Your task to perform on an android device: Go to ESPN.com Image 0: 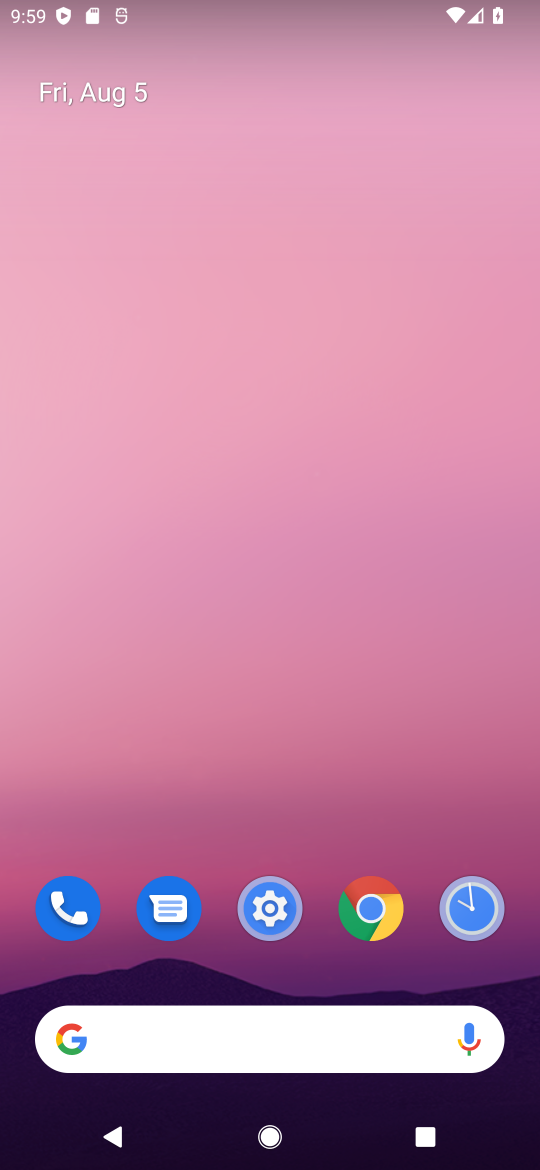
Step 0: click (393, 914)
Your task to perform on an android device: Go to ESPN.com Image 1: 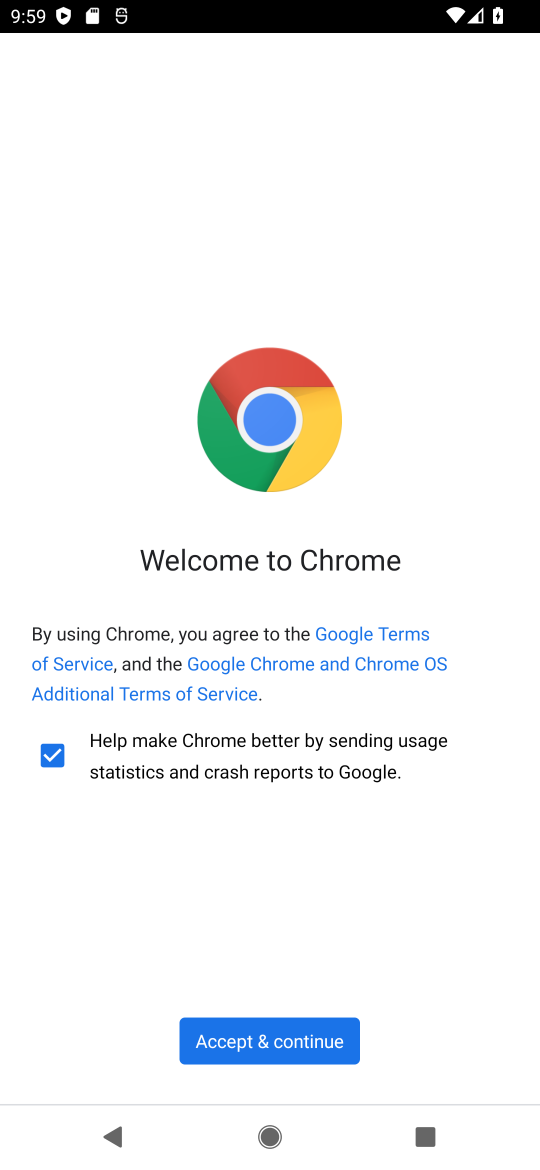
Step 1: click (296, 1009)
Your task to perform on an android device: Go to ESPN.com Image 2: 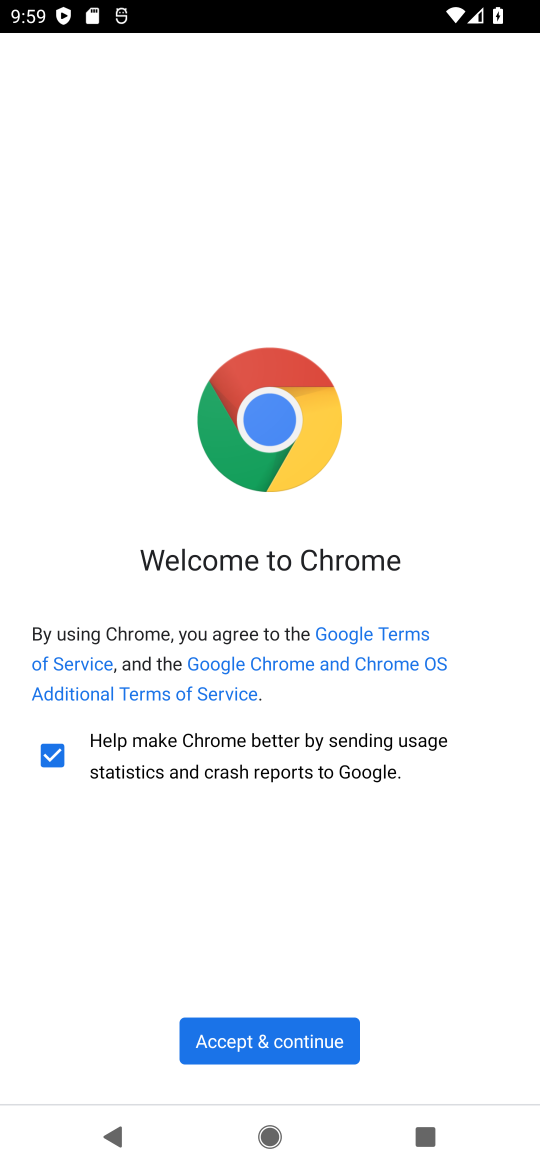
Step 2: click (296, 1009)
Your task to perform on an android device: Go to ESPN.com Image 3: 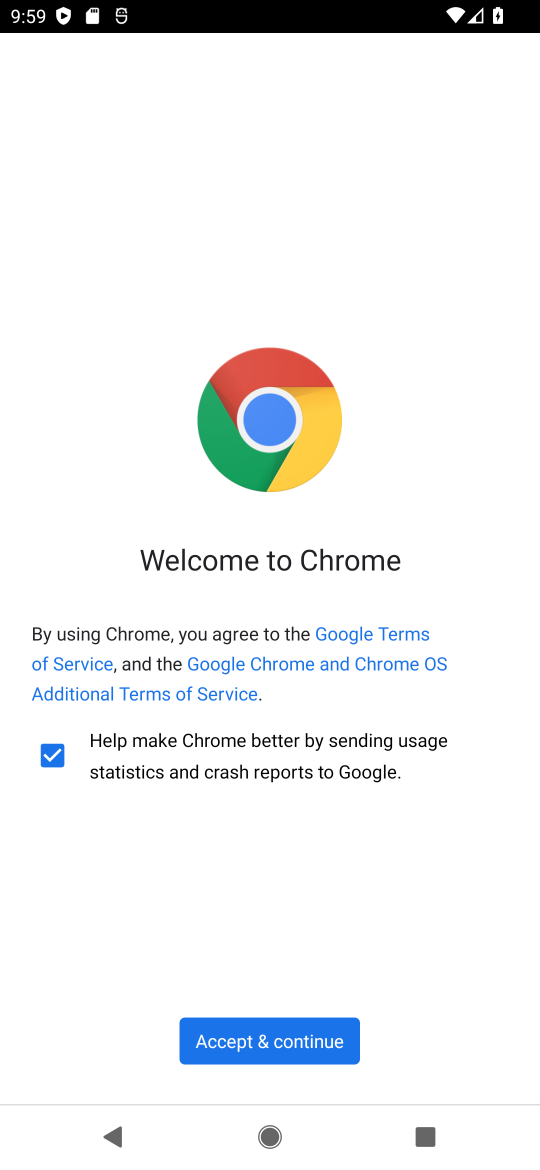
Step 3: click (302, 1033)
Your task to perform on an android device: Go to ESPN.com Image 4: 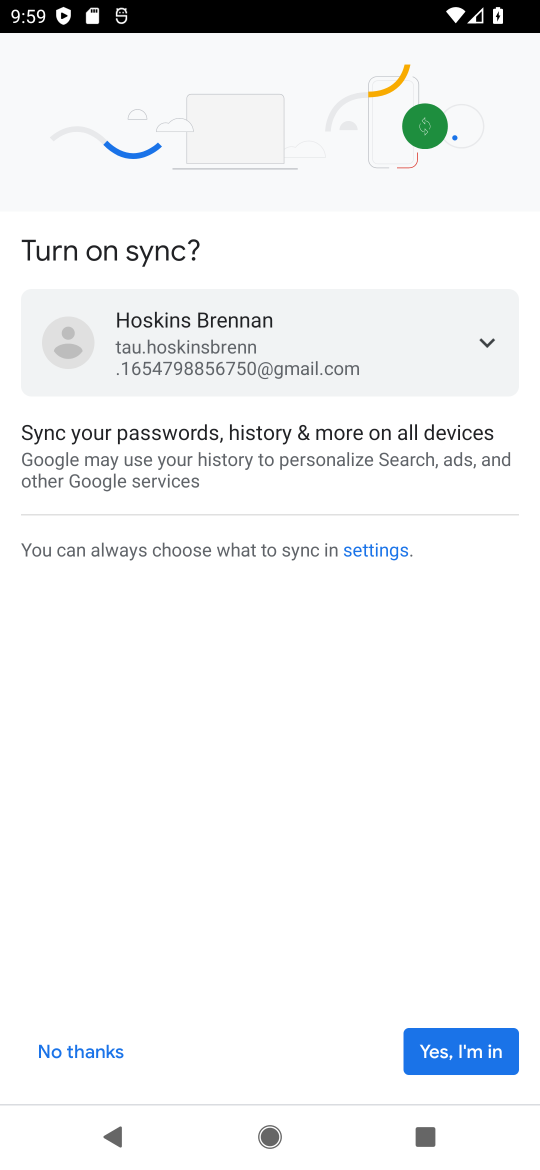
Step 4: click (418, 1037)
Your task to perform on an android device: Go to ESPN.com Image 5: 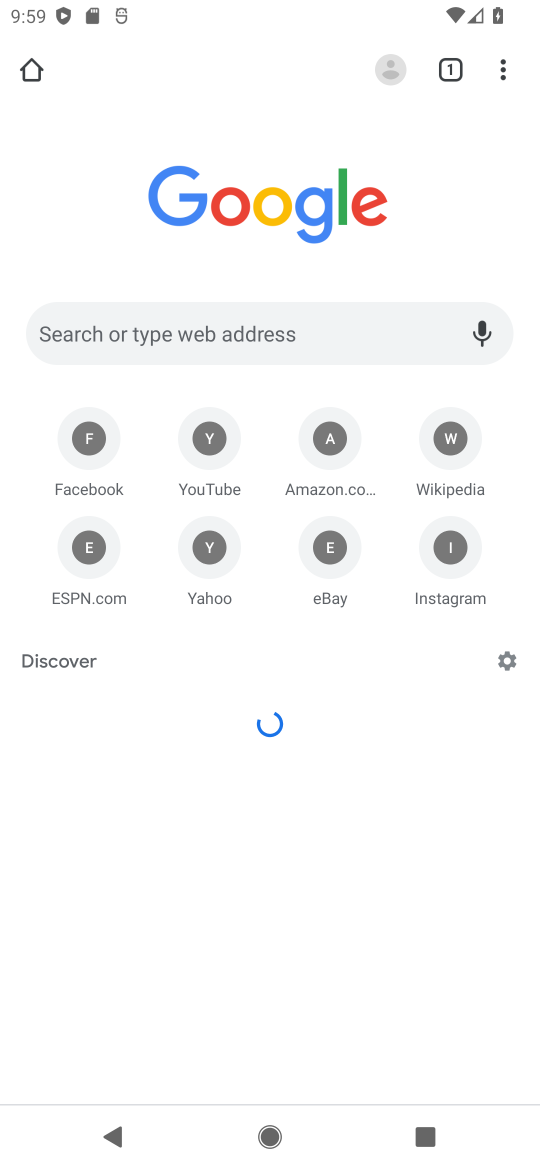
Step 5: click (485, 1061)
Your task to perform on an android device: Go to ESPN.com Image 6: 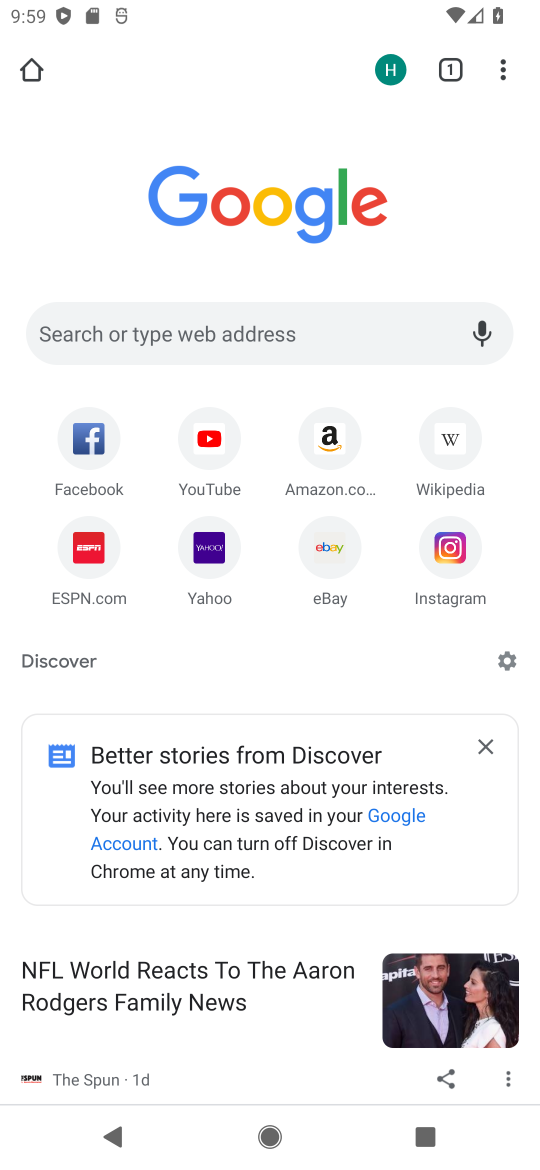
Step 6: click (99, 593)
Your task to perform on an android device: Go to ESPN.com Image 7: 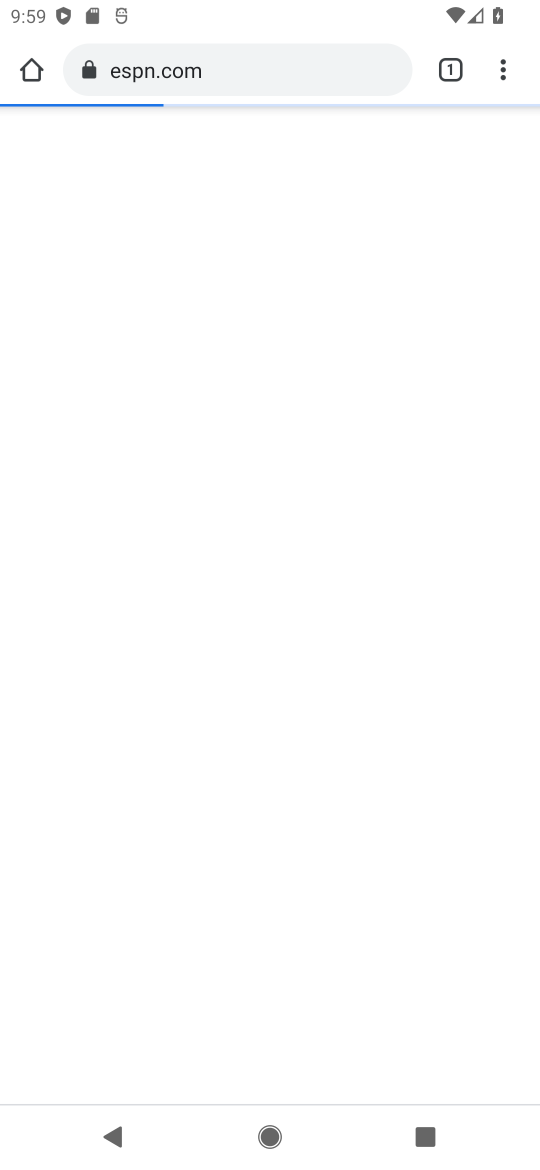
Step 7: task complete